Your task to perform on an android device: Open network settings Image 0: 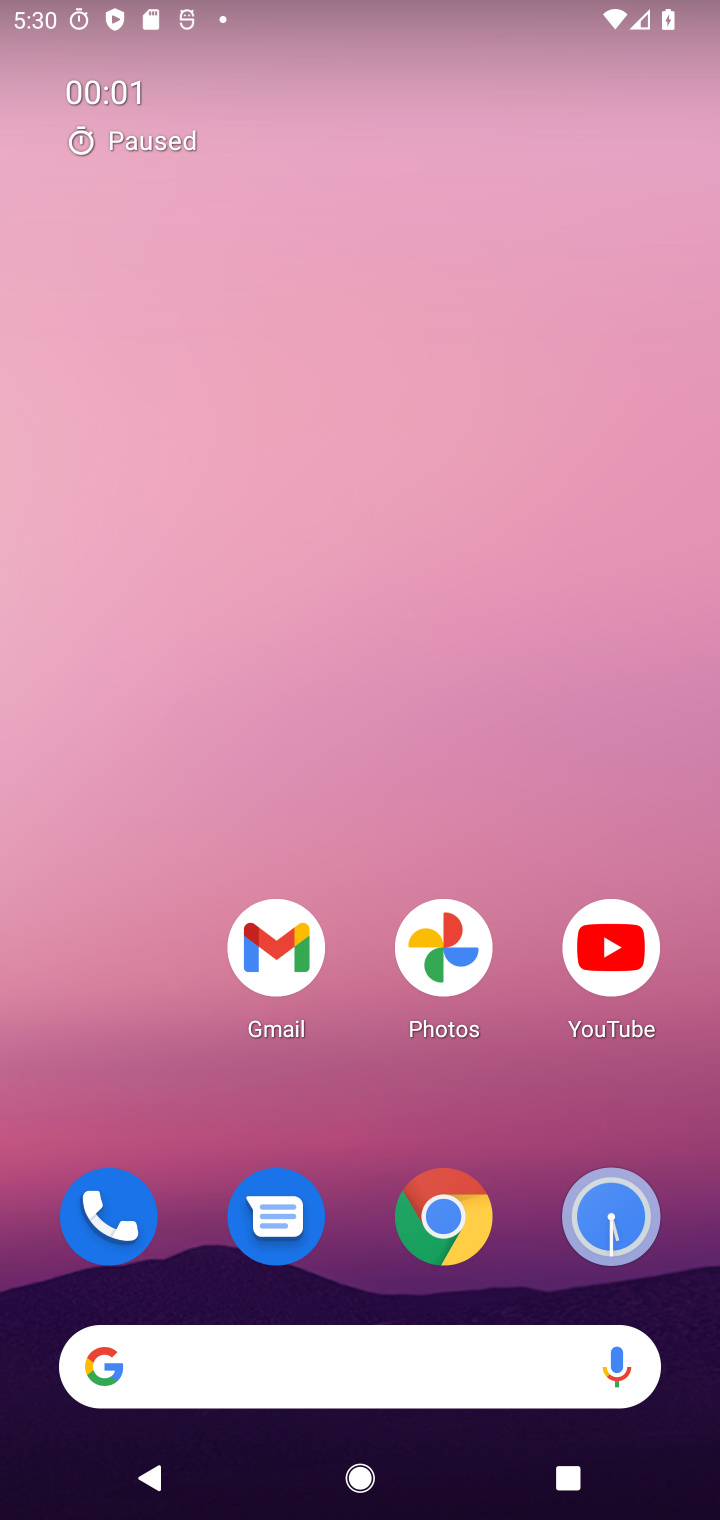
Step 0: drag from (374, 1012) to (380, 204)
Your task to perform on an android device: Open network settings Image 1: 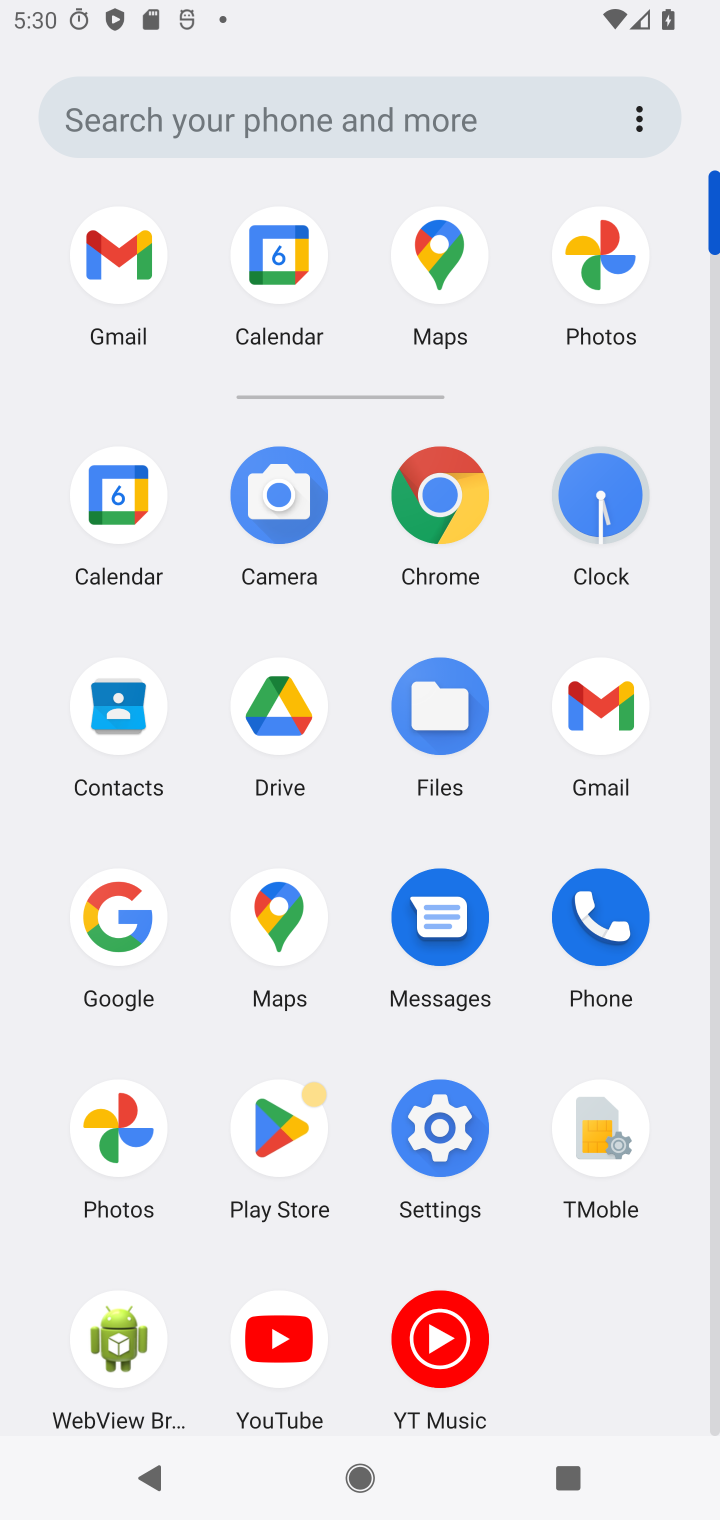
Step 1: click (435, 1119)
Your task to perform on an android device: Open network settings Image 2: 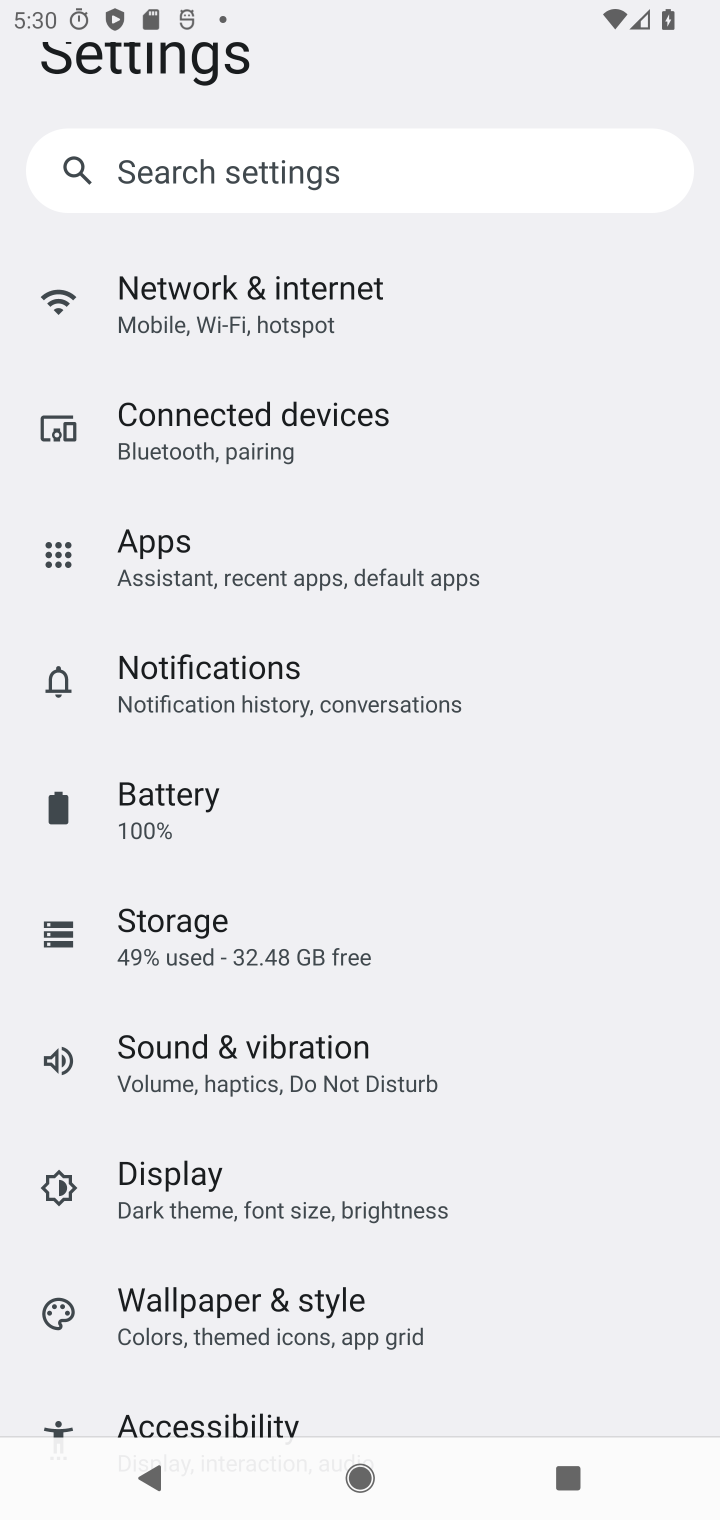
Step 2: click (322, 286)
Your task to perform on an android device: Open network settings Image 3: 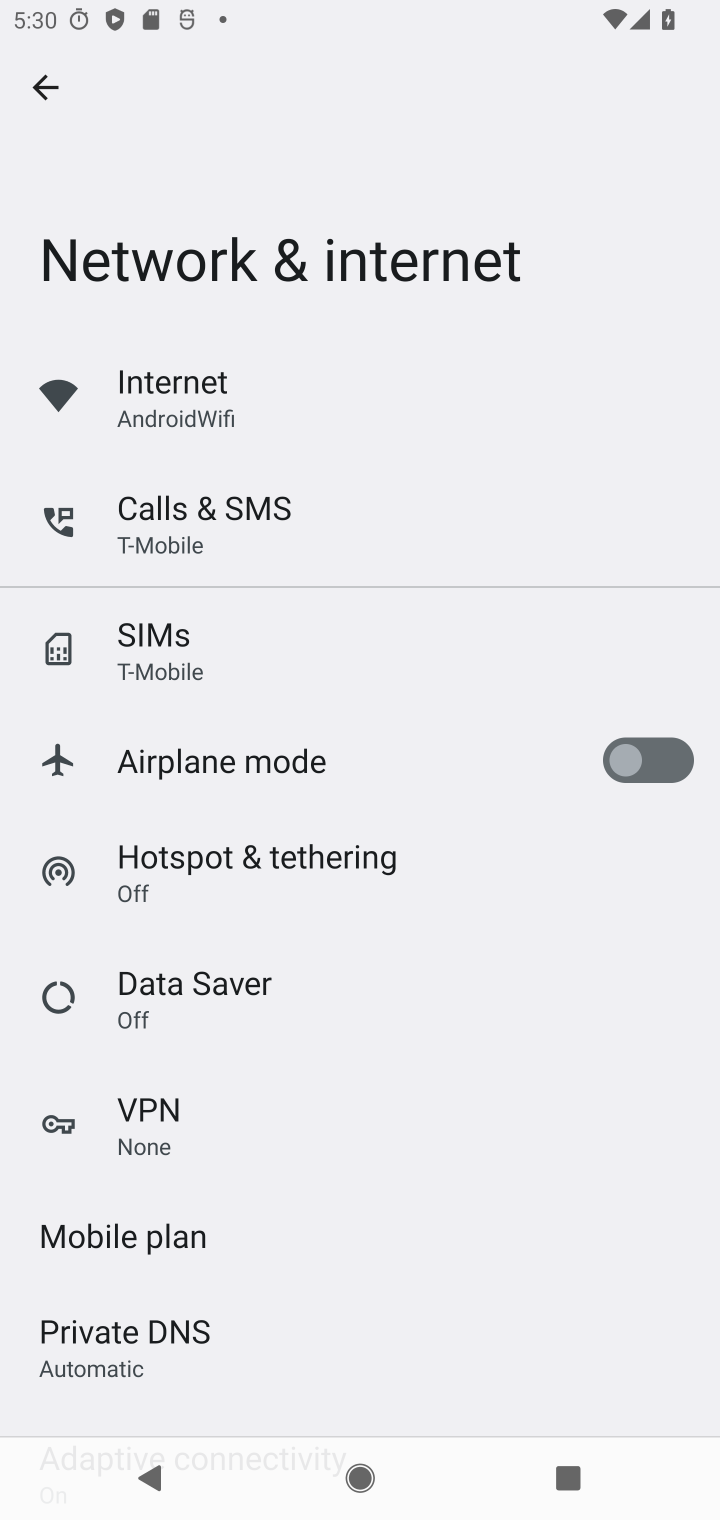
Step 3: task complete